Your task to perform on an android device: change alarm snooze length Image 0: 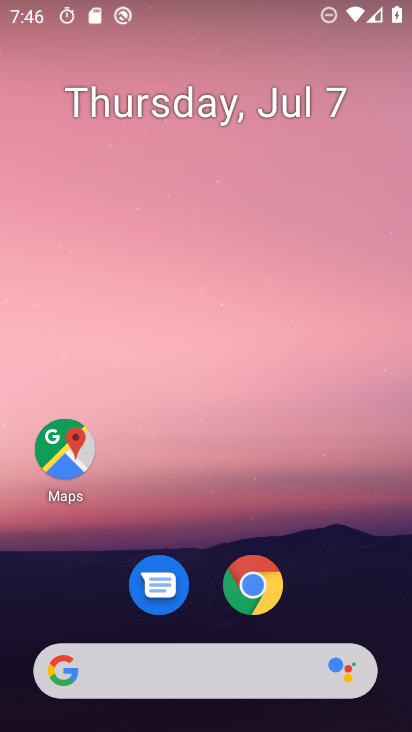
Step 0: drag from (207, 673) to (338, 0)
Your task to perform on an android device: change alarm snooze length Image 1: 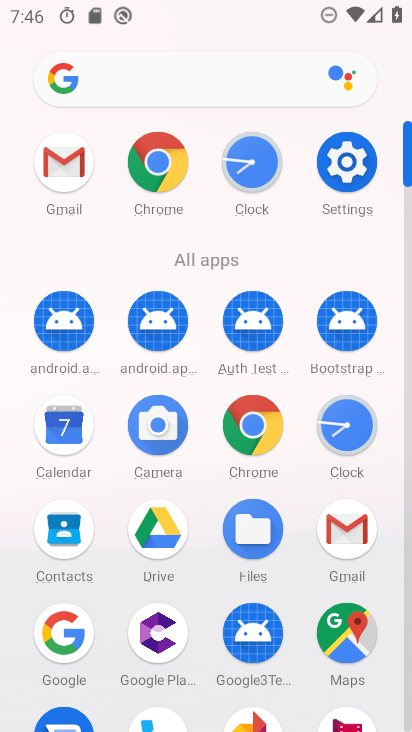
Step 1: click (257, 162)
Your task to perform on an android device: change alarm snooze length Image 2: 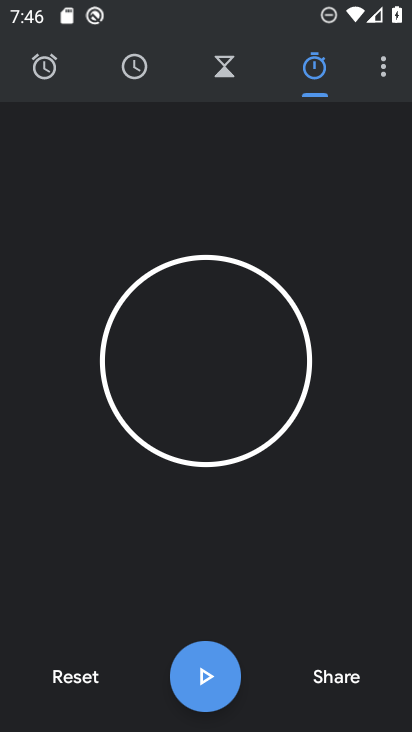
Step 2: click (385, 71)
Your task to perform on an android device: change alarm snooze length Image 3: 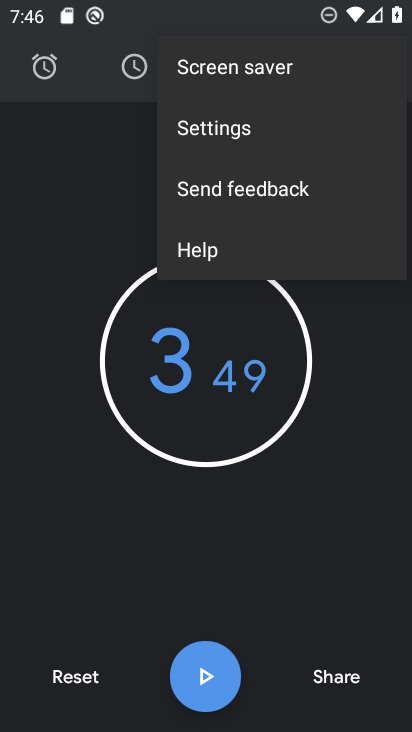
Step 3: click (221, 128)
Your task to perform on an android device: change alarm snooze length Image 4: 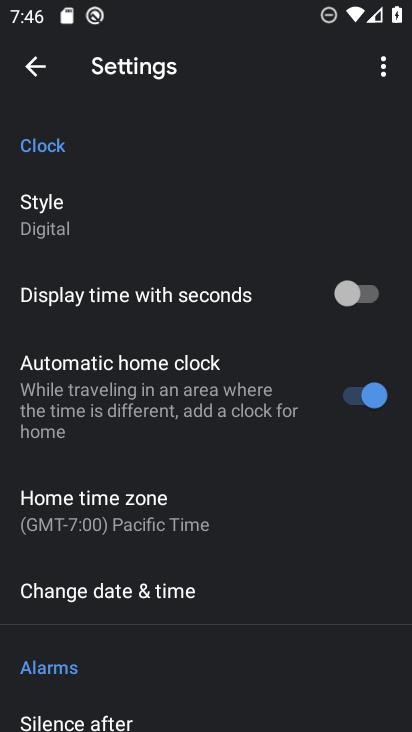
Step 4: drag from (171, 593) to (328, 82)
Your task to perform on an android device: change alarm snooze length Image 5: 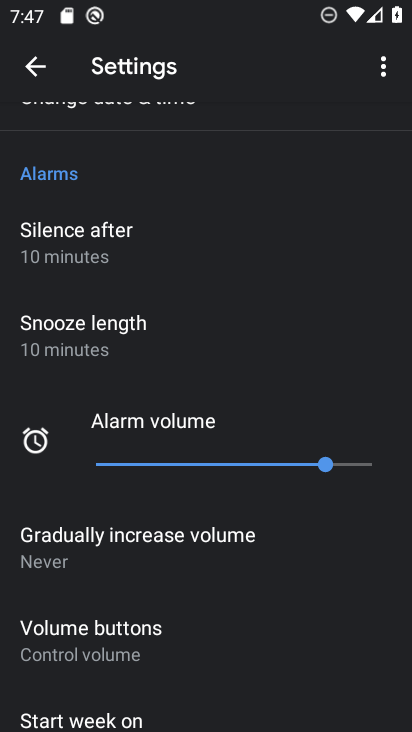
Step 5: click (110, 349)
Your task to perform on an android device: change alarm snooze length Image 6: 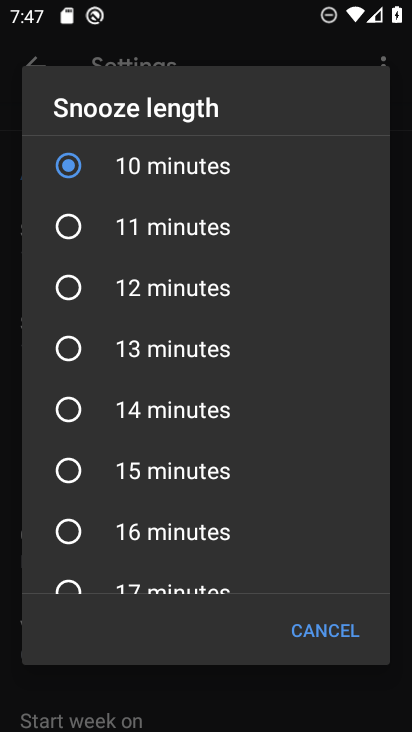
Step 6: click (64, 475)
Your task to perform on an android device: change alarm snooze length Image 7: 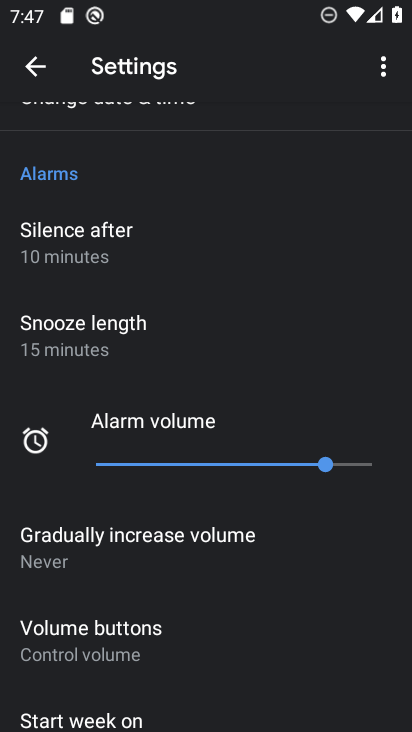
Step 7: task complete